Your task to perform on an android device: Open the calendar and show me this week's events? Image 0: 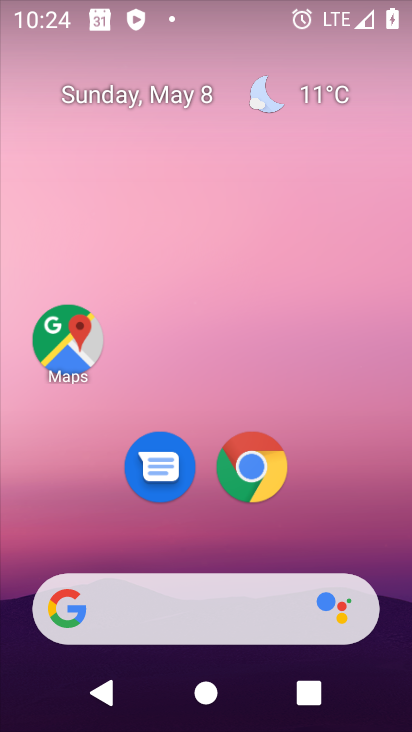
Step 0: drag from (33, 716) to (218, 189)
Your task to perform on an android device: Open the calendar and show me this week's events? Image 1: 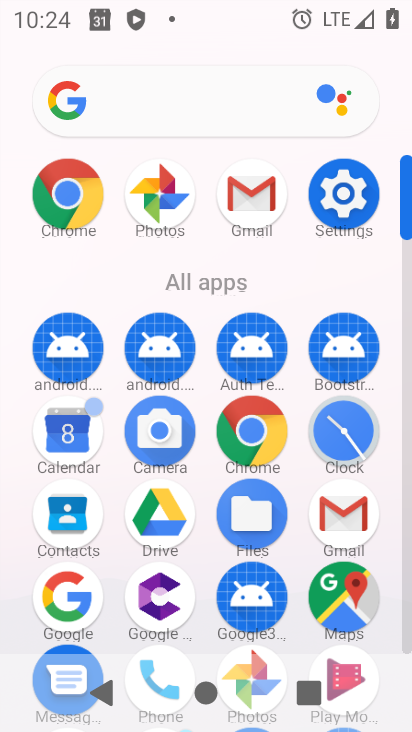
Step 1: click (65, 437)
Your task to perform on an android device: Open the calendar and show me this week's events? Image 2: 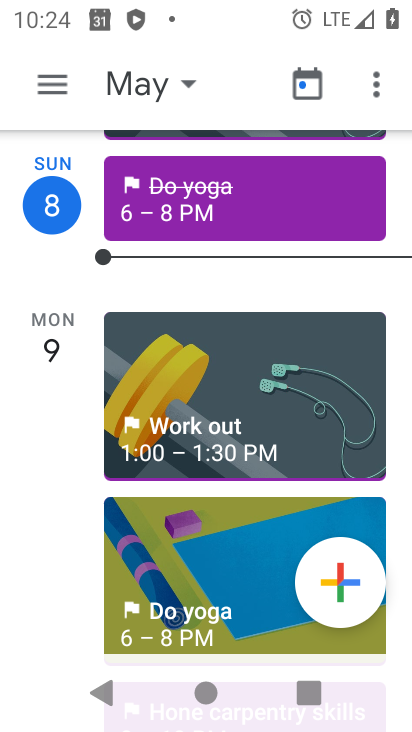
Step 2: click (141, 96)
Your task to perform on an android device: Open the calendar and show me this week's events? Image 3: 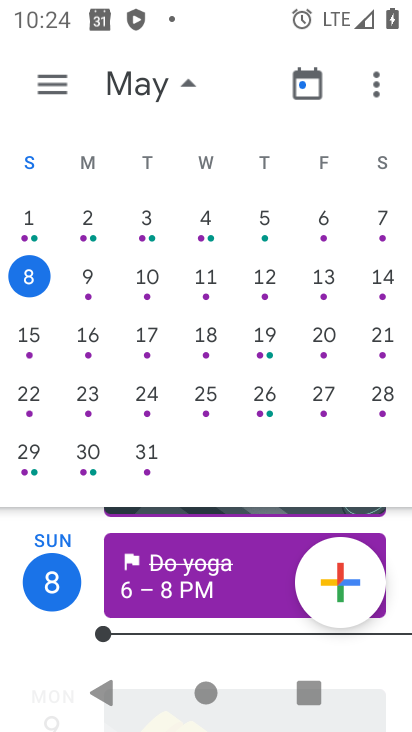
Step 3: click (95, 279)
Your task to perform on an android device: Open the calendar and show me this week's events? Image 4: 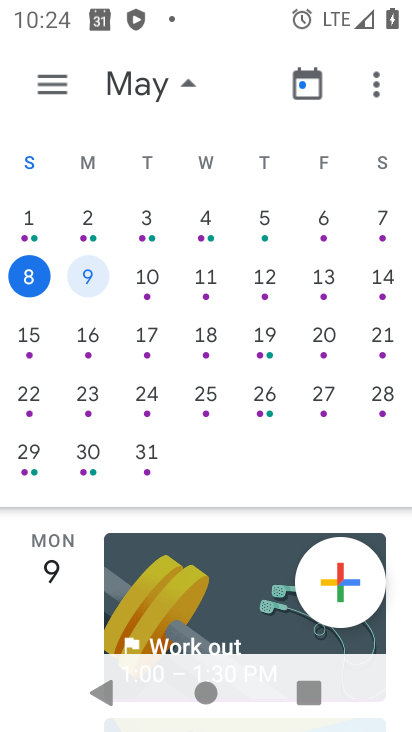
Step 4: click (138, 273)
Your task to perform on an android device: Open the calendar and show me this week's events? Image 5: 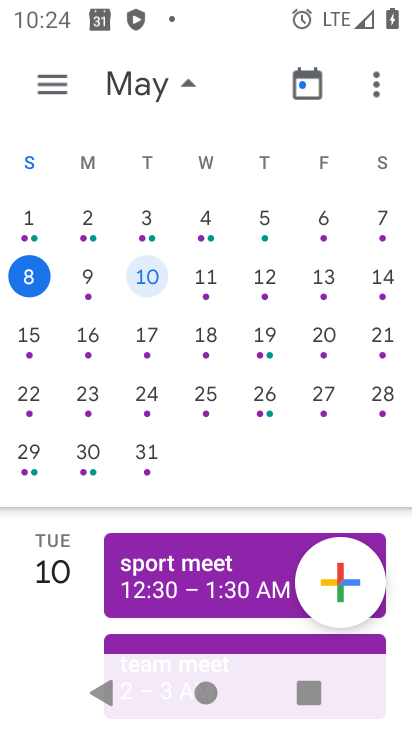
Step 5: click (201, 274)
Your task to perform on an android device: Open the calendar and show me this week's events? Image 6: 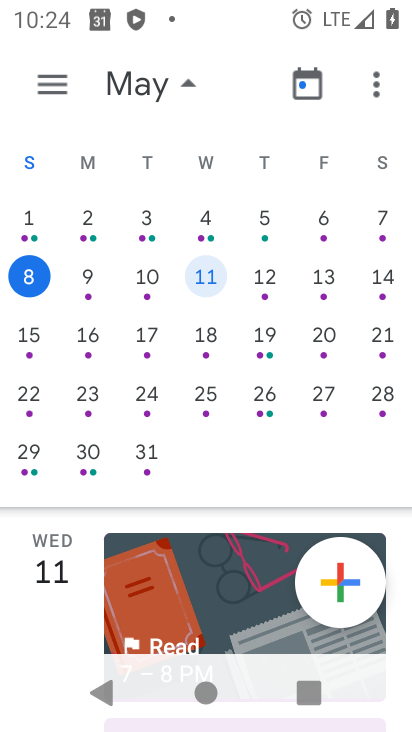
Step 6: task complete